Your task to perform on an android device: create a new album in the google photos Image 0: 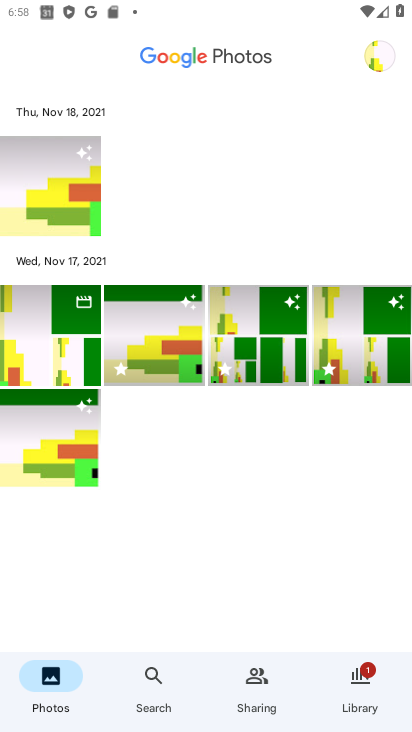
Step 0: press home button
Your task to perform on an android device: create a new album in the google photos Image 1: 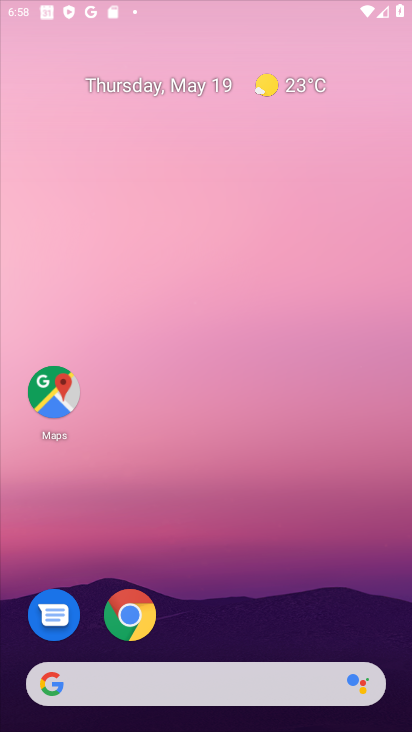
Step 1: drag from (352, 594) to (277, 78)
Your task to perform on an android device: create a new album in the google photos Image 2: 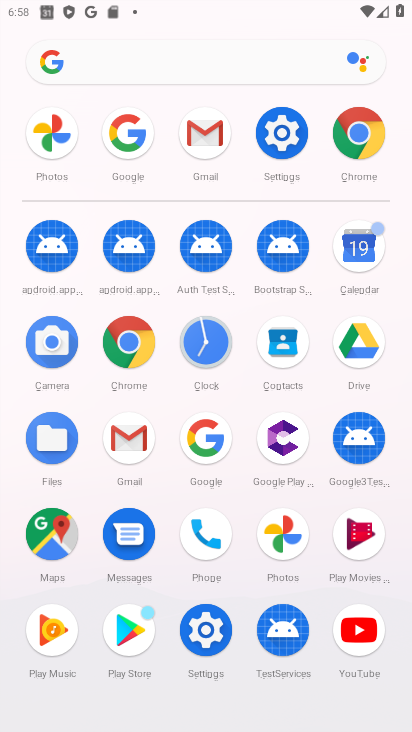
Step 2: click (277, 530)
Your task to perform on an android device: create a new album in the google photos Image 3: 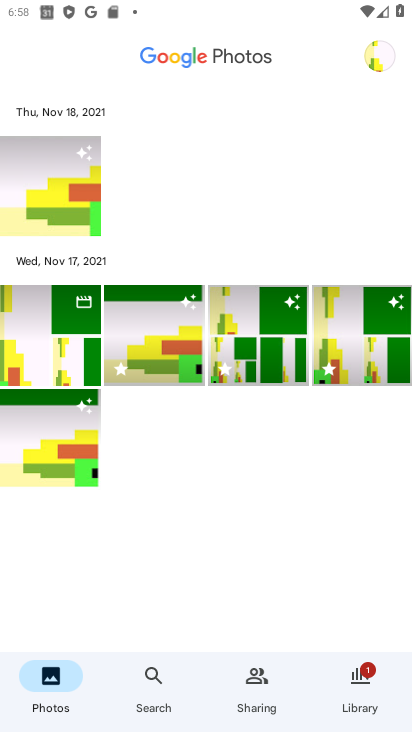
Step 3: click (71, 216)
Your task to perform on an android device: create a new album in the google photos Image 4: 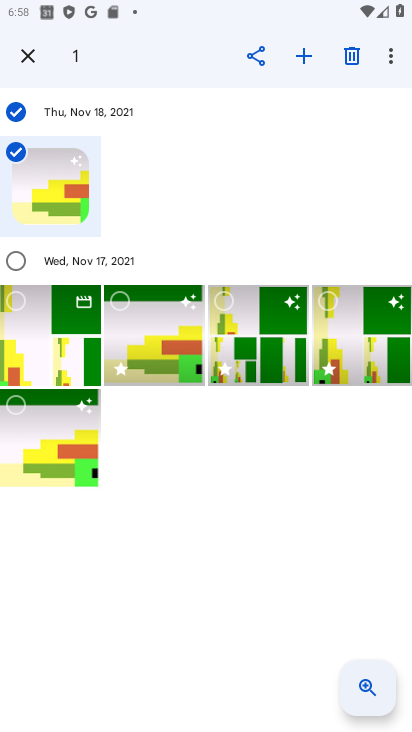
Step 4: click (308, 51)
Your task to perform on an android device: create a new album in the google photos Image 5: 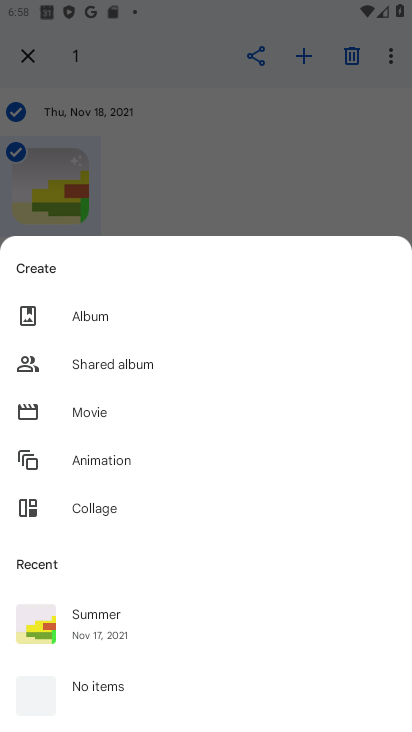
Step 5: click (102, 317)
Your task to perform on an android device: create a new album in the google photos Image 6: 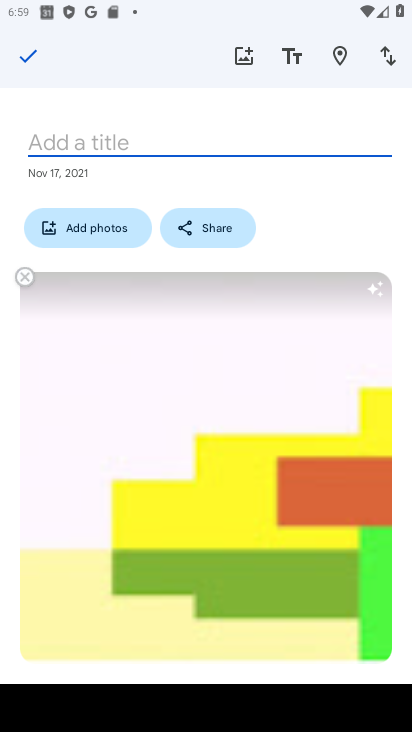
Step 6: type "KB"
Your task to perform on an android device: create a new album in the google photos Image 7: 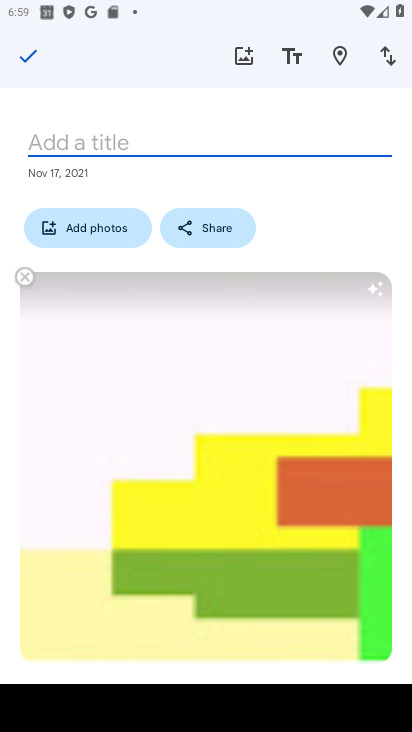
Step 7: click (14, 66)
Your task to perform on an android device: create a new album in the google photos Image 8: 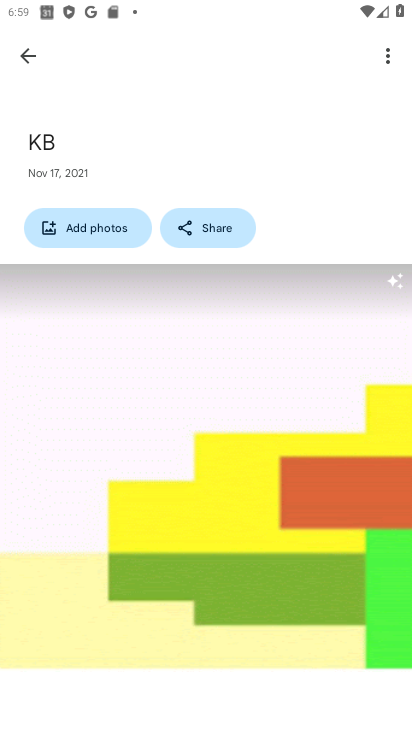
Step 8: task complete